Your task to perform on an android device: Search for Mexican restaurants on Maps Image 0: 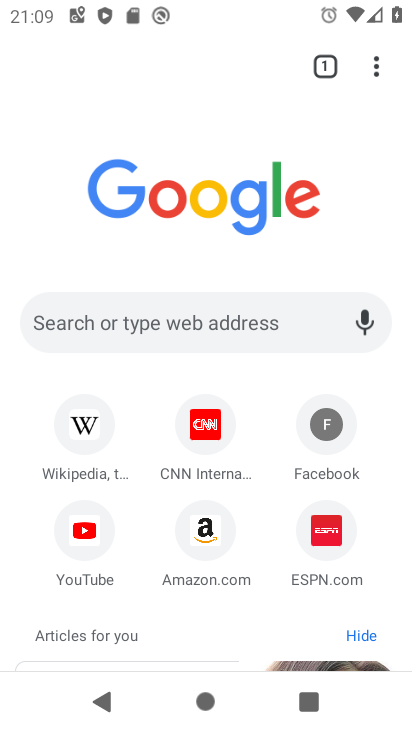
Step 0: press home button
Your task to perform on an android device: Search for Mexican restaurants on Maps Image 1: 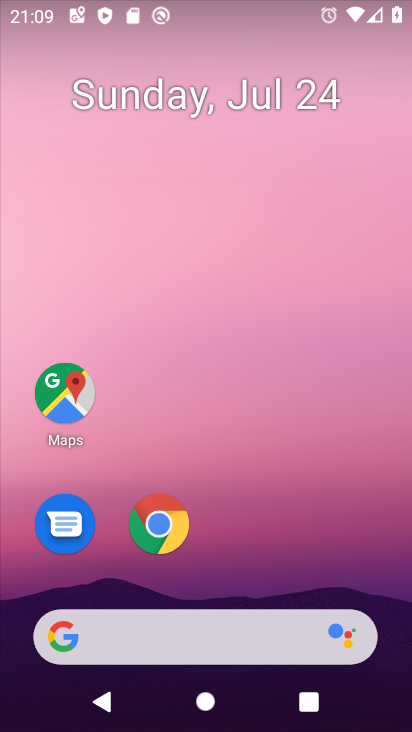
Step 1: click (66, 399)
Your task to perform on an android device: Search for Mexican restaurants on Maps Image 2: 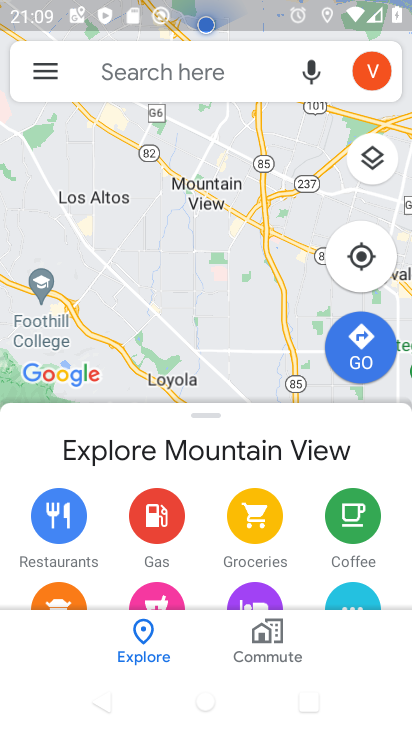
Step 2: click (192, 77)
Your task to perform on an android device: Search for Mexican restaurants on Maps Image 3: 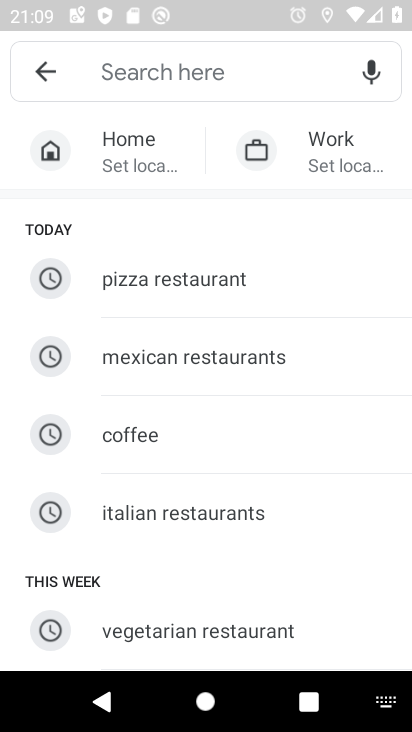
Step 3: click (208, 354)
Your task to perform on an android device: Search for Mexican restaurants on Maps Image 4: 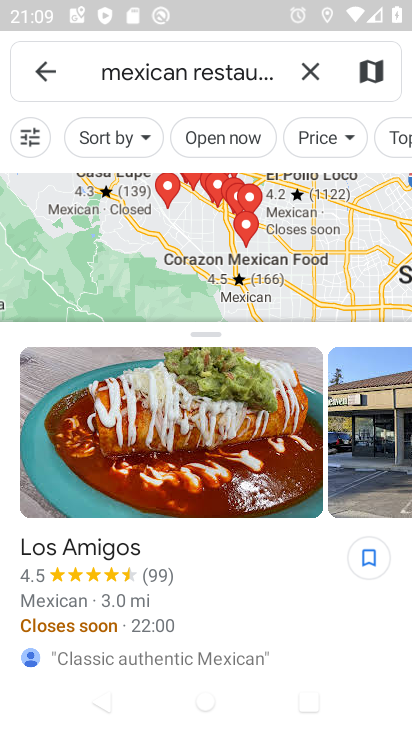
Step 4: task complete